Your task to perform on an android device: Go to accessibility settings Image 0: 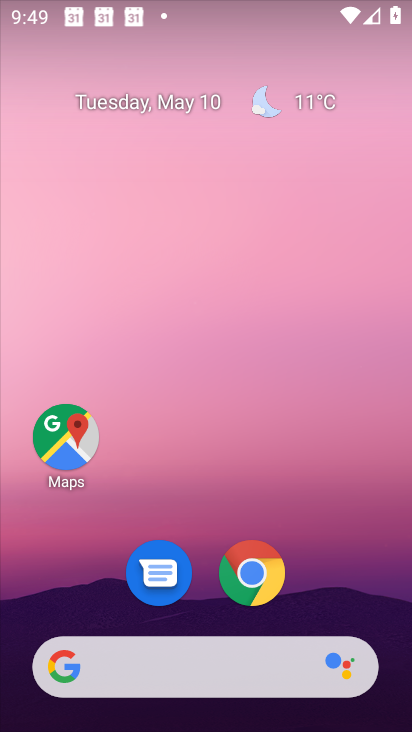
Step 0: drag from (305, 538) to (323, 131)
Your task to perform on an android device: Go to accessibility settings Image 1: 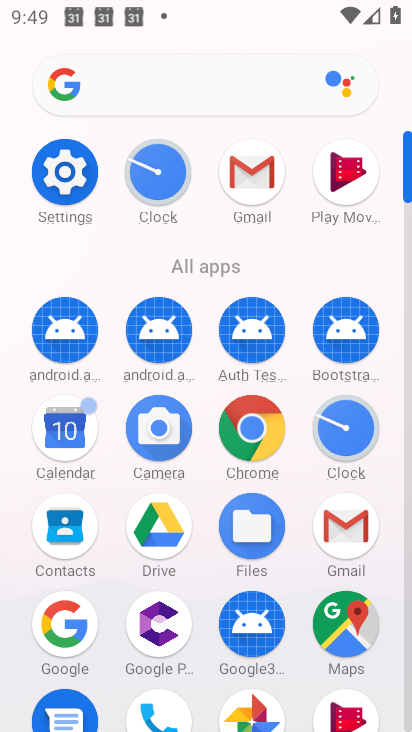
Step 1: click (44, 180)
Your task to perform on an android device: Go to accessibility settings Image 2: 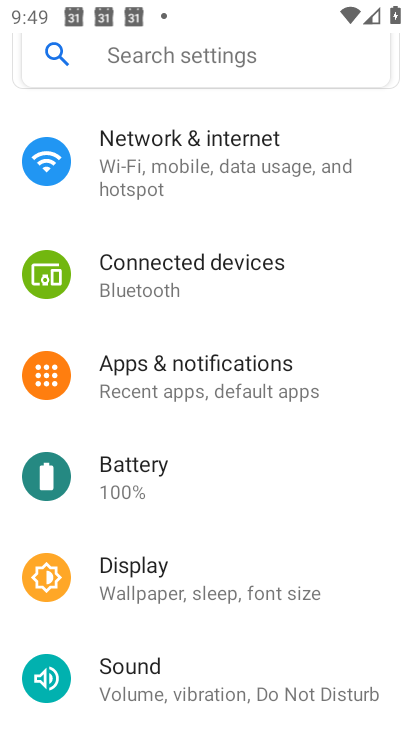
Step 2: drag from (248, 600) to (239, 264)
Your task to perform on an android device: Go to accessibility settings Image 3: 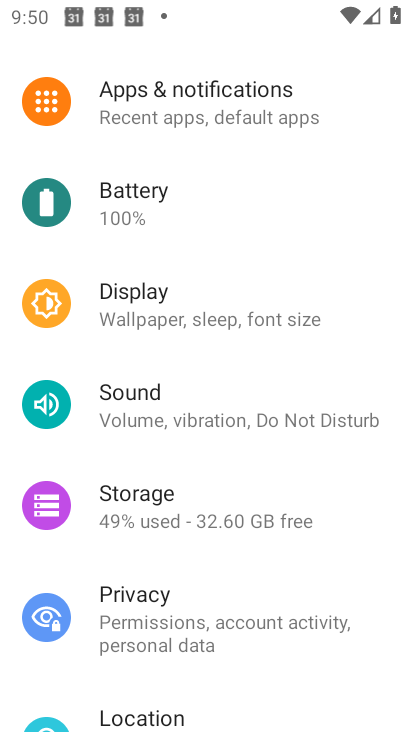
Step 3: drag from (219, 620) to (227, 228)
Your task to perform on an android device: Go to accessibility settings Image 4: 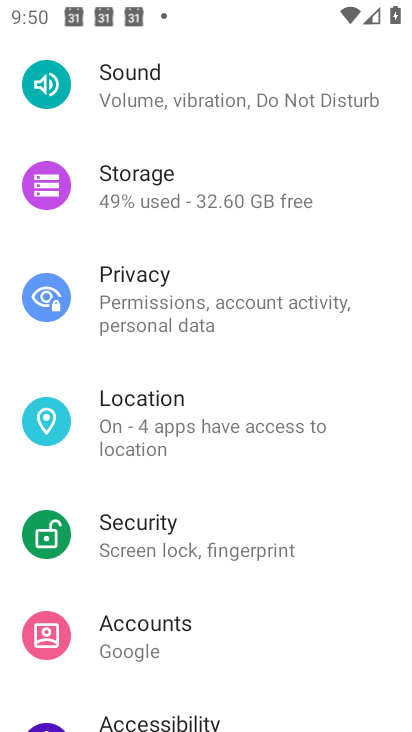
Step 4: drag from (232, 630) to (240, 444)
Your task to perform on an android device: Go to accessibility settings Image 5: 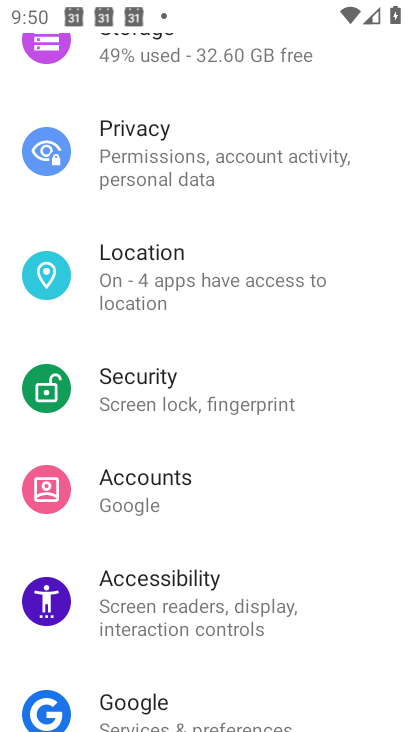
Step 5: click (257, 619)
Your task to perform on an android device: Go to accessibility settings Image 6: 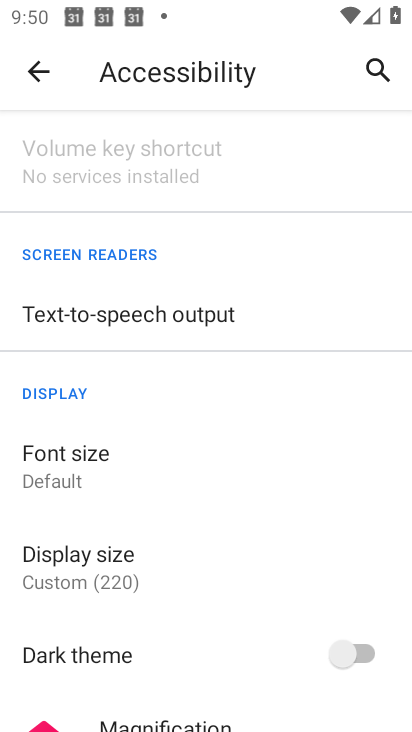
Step 6: task complete